Your task to perform on an android device: find which apps use the phone's location Image 0: 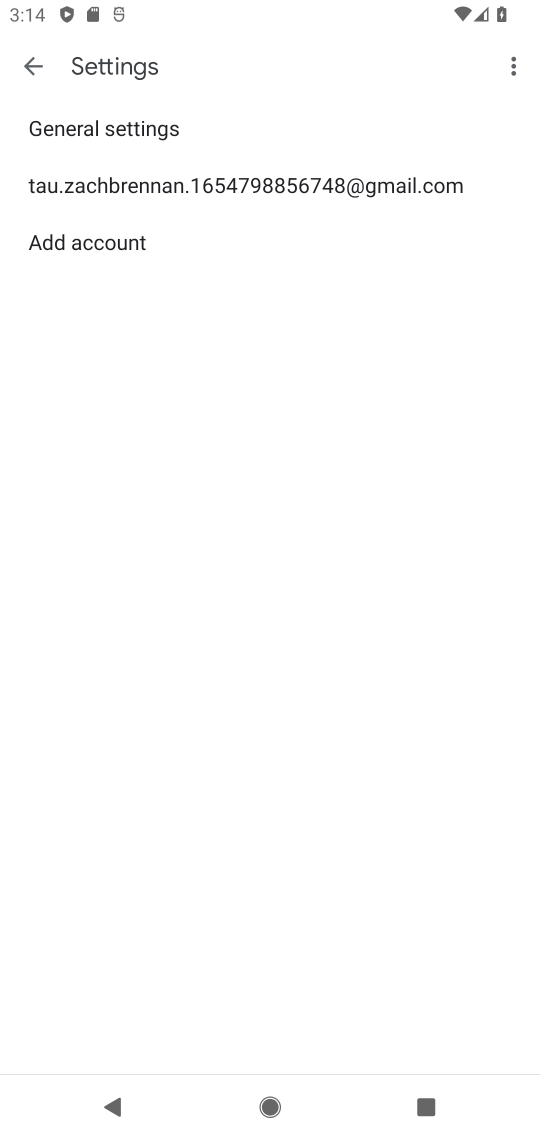
Step 0: press home button
Your task to perform on an android device: find which apps use the phone's location Image 1: 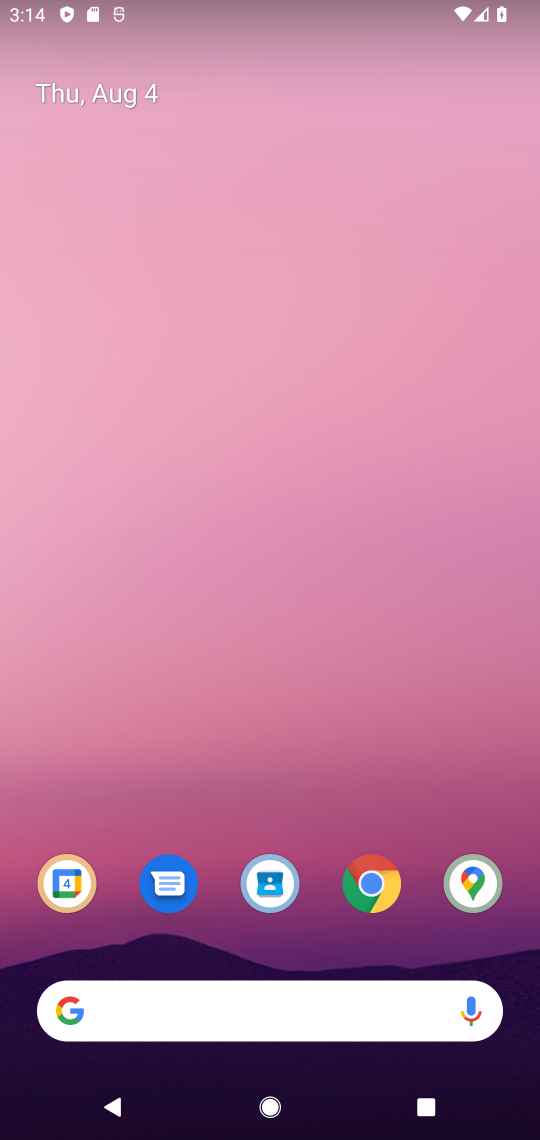
Step 1: drag from (527, 843) to (345, 199)
Your task to perform on an android device: find which apps use the phone's location Image 2: 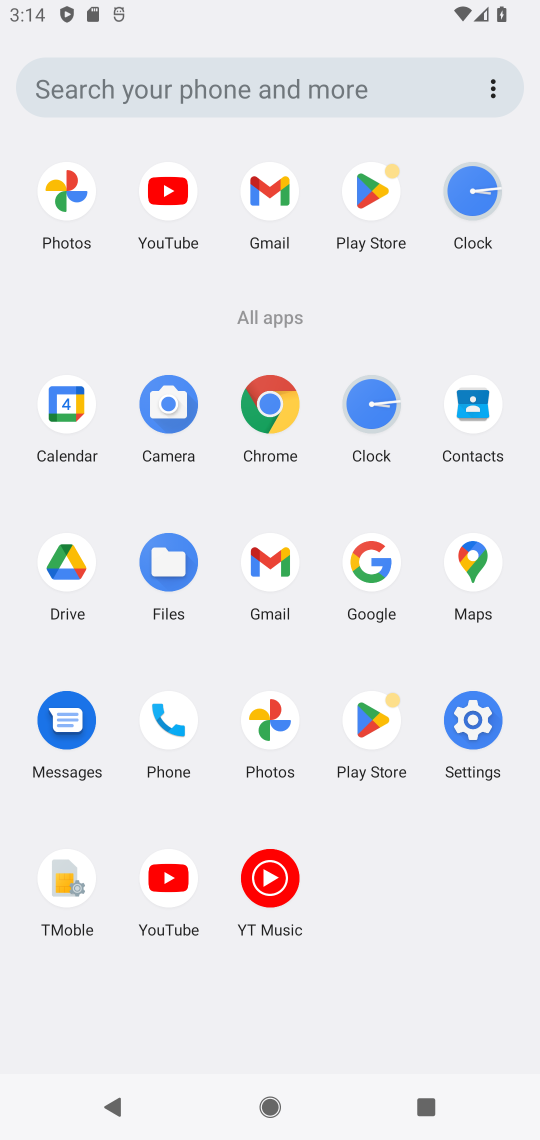
Step 2: click (490, 708)
Your task to perform on an android device: find which apps use the phone's location Image 3: 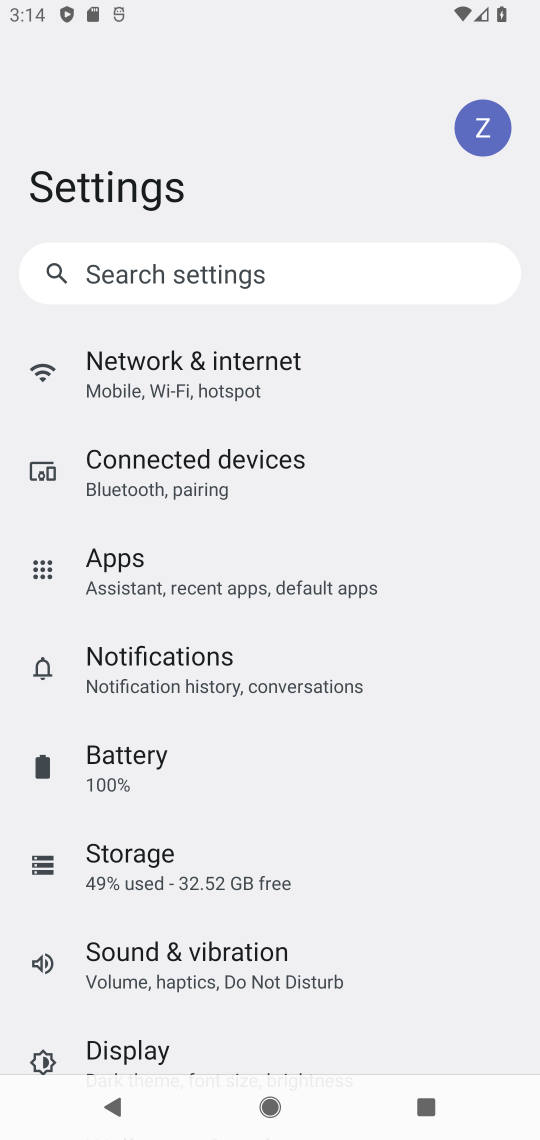
Step 3: drag from (270, 968) to (177, 389)
Your task to perform on an android device: find which apps use the phone's location Image 4: 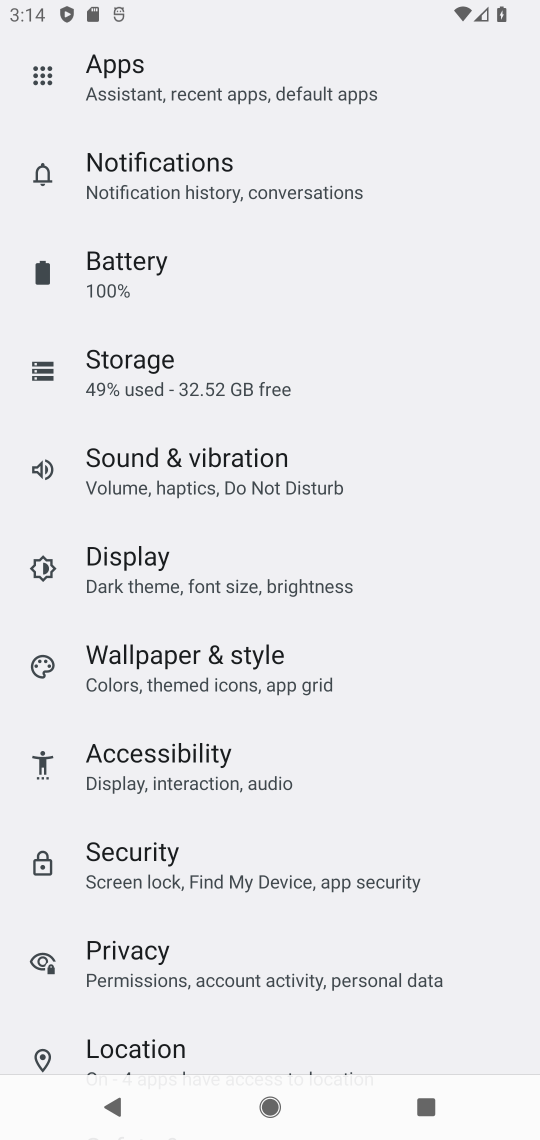
Step 4: click (132, 1051)
Your task to perform on an android device: find which apps use the phone's location Image 5: 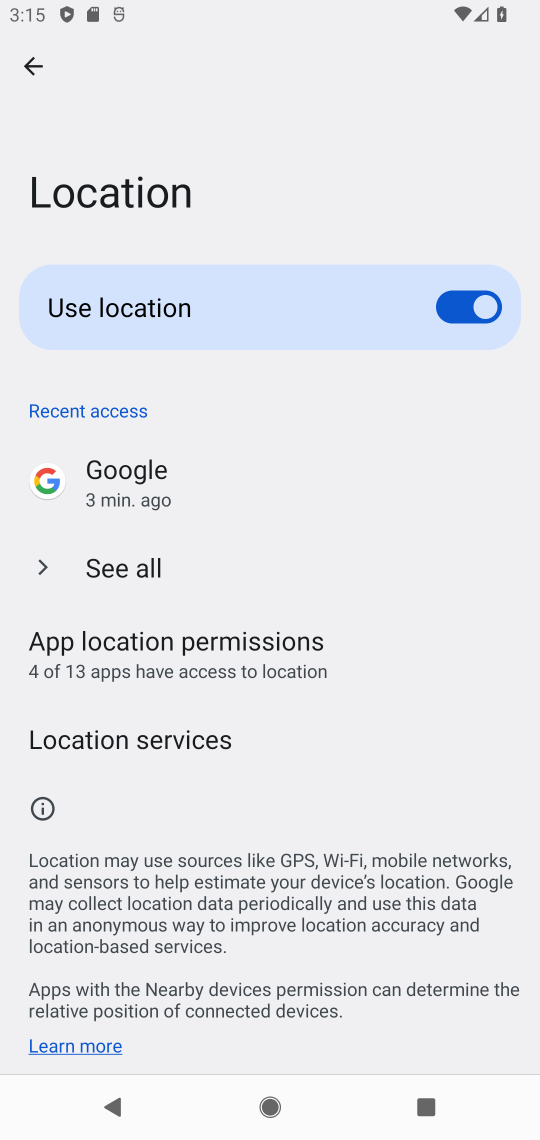
Step 5: click (151, 636)
Your task to perform on an android device: find which apps use the phone's location Image 6: 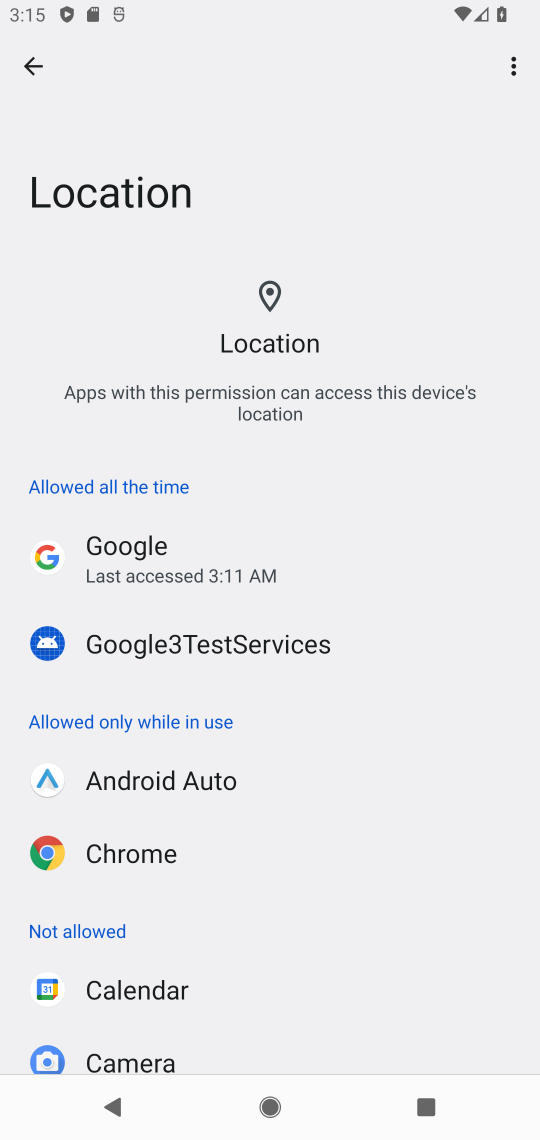
Step 6: drag from (106, 911) to (181, 387)
Your task to perform on an android device: find which apps use the phone's location Image 7: 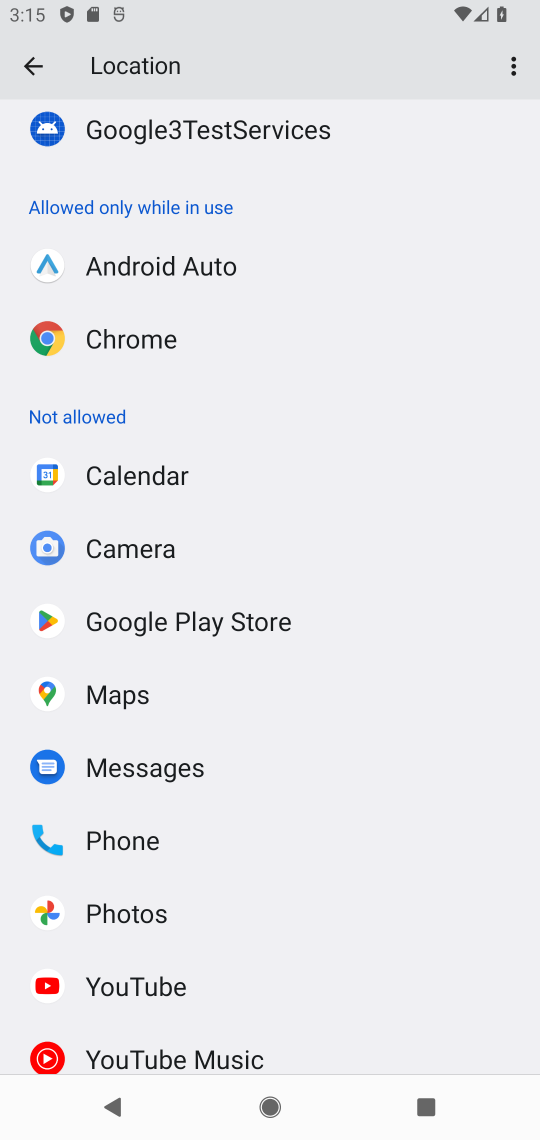
Step 7: click (125, 826)
Your task to perform on an android device: find which apps use the phone's location Image 8: 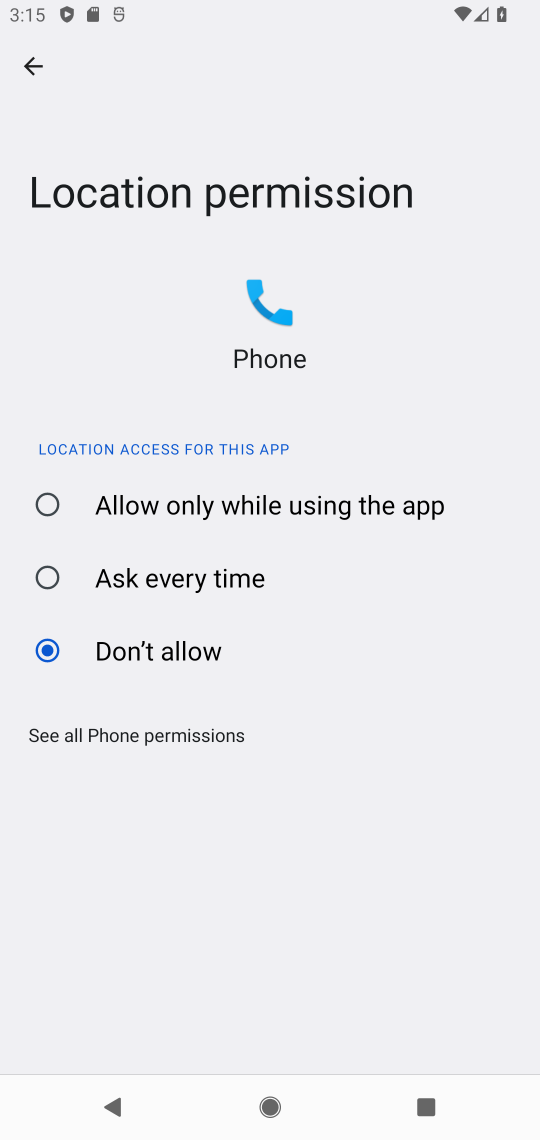
Step 8: click (123, 513)
Your task to perform on an android device: find which apps use the phone's location Image 9: 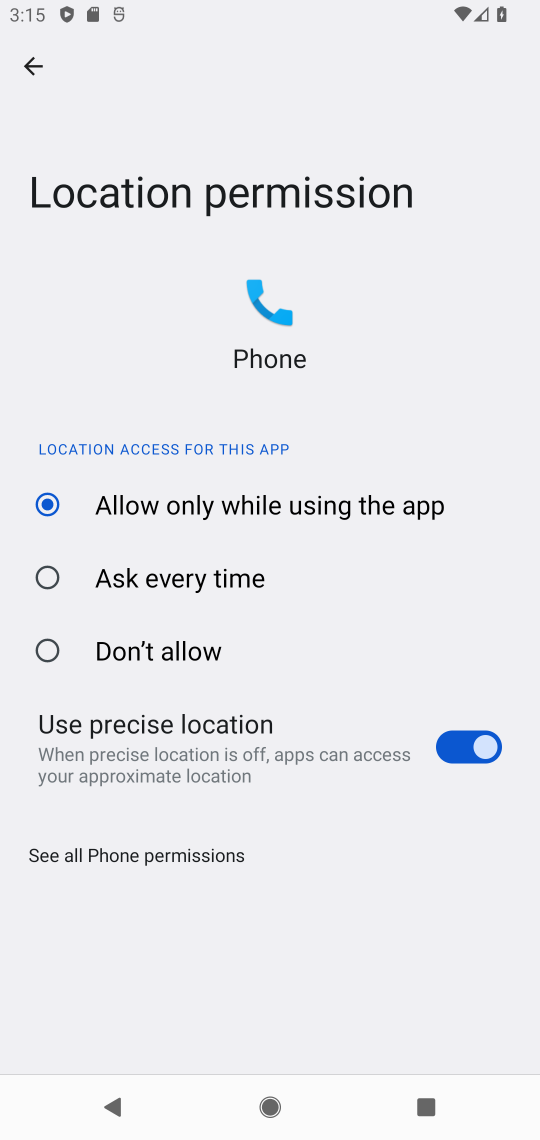
Step 9: task complete